Your task to perform on an android device: Turn off the flashlight Image 0: 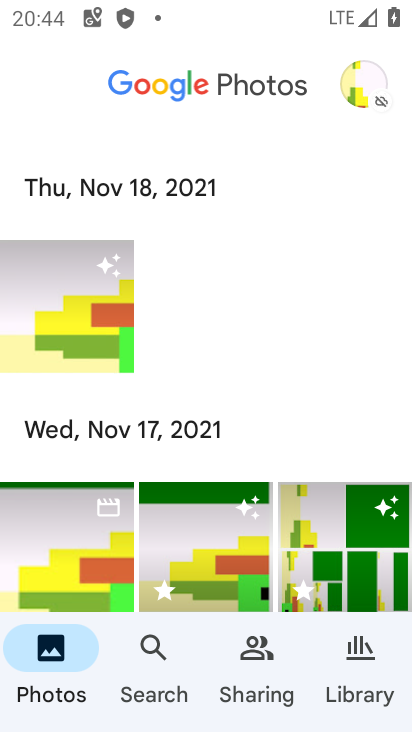
Step 0: press home button
Your task to perform on an android device: Turn off the flashlight Image 1: 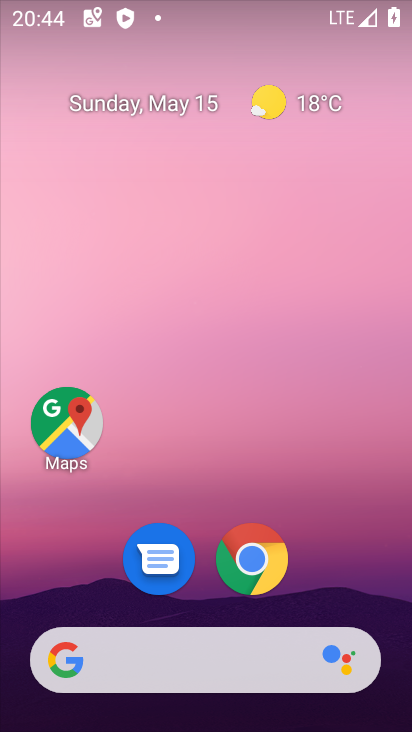
Step 1: drag from (216, 480) to (79, 40)
Your task to perform on an android device: Turn off the flashlight Image 2: 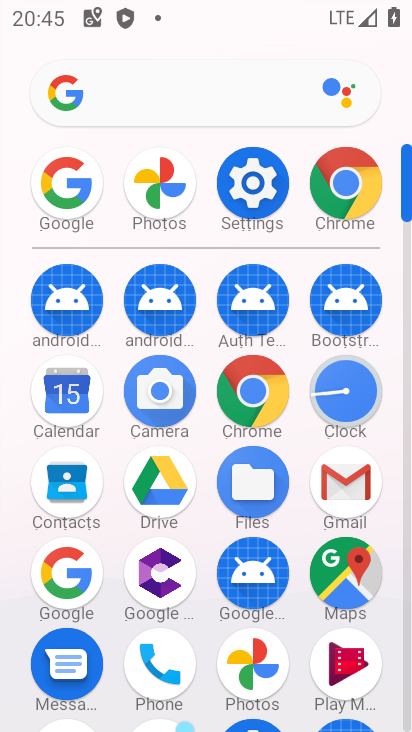
Step 2: click (276, 198)
Your task to perform on an android device: Turn off the flashlight Image 3: 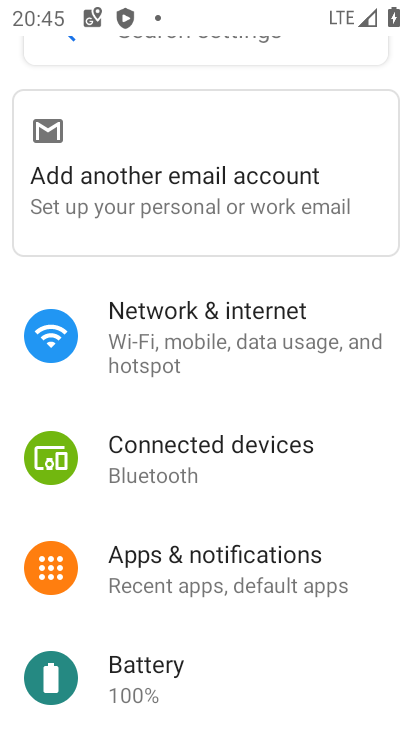
Step 3: click (199, 574)
Your task to perform on an android device: Turn off the flashlight Image 4: 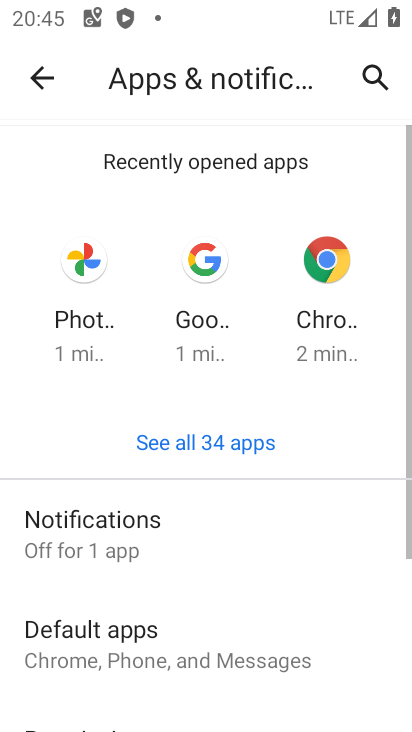
Step 4: task complete